Your task to perform on an android device: Open settings on Google Maps Image 0: 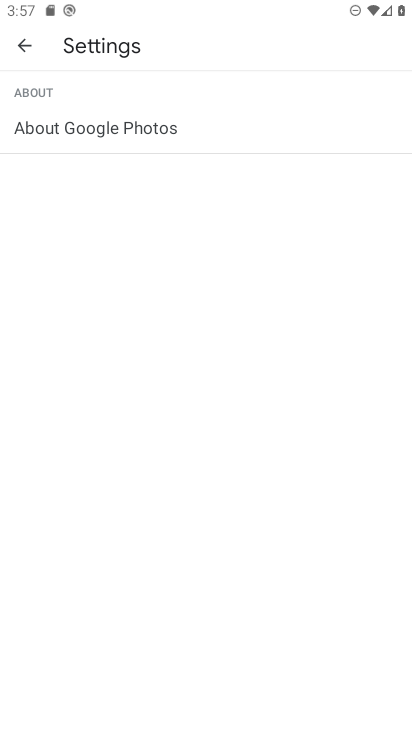
Step 0: click (24, 48)
Your task to perform on an android device: Open settings on Google Maps Image 1: 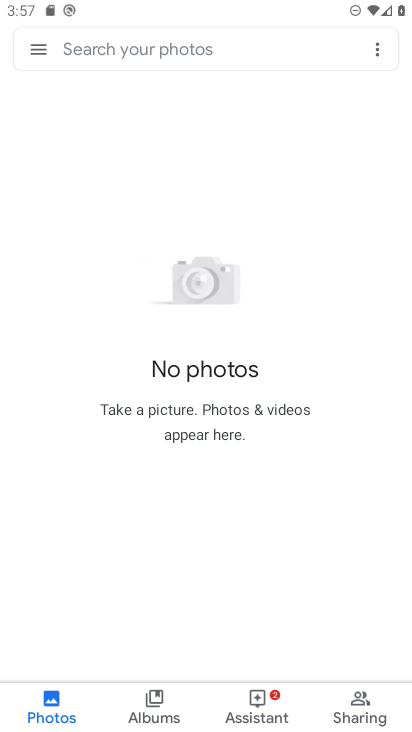
Step 1: press home button
Your task to perform on an android device: Open settings on Google Maps Image 2: 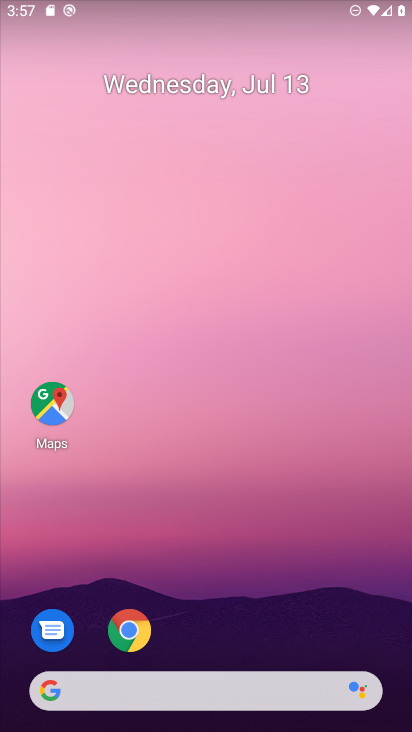
Step 2: click (50, 402)
Your task to perform on an android device: Open settings on Google Maps Image 3: 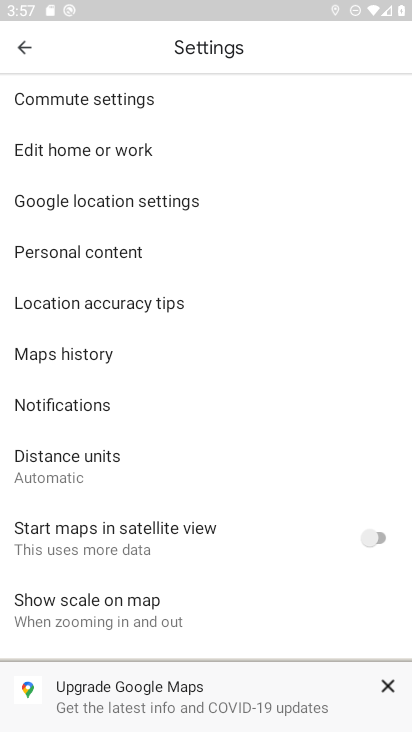
Step 3: drag from (167, 595) to (183, 436)
Your task to perform on an android device: Open settings on Google Maps Image 4: 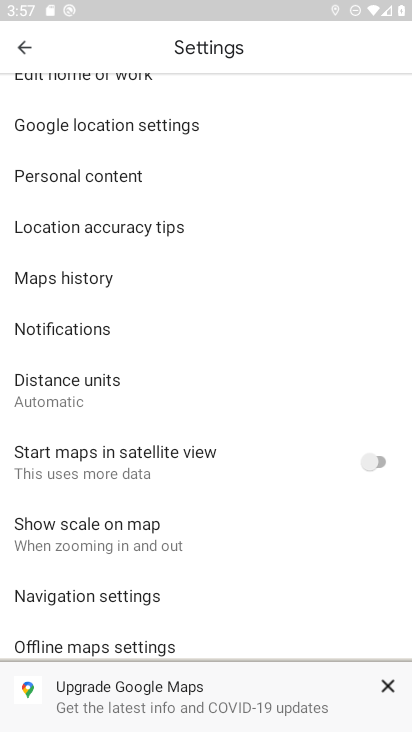
Step 4: click (256, 285)
Your task to perform on an android device: Open settings on Google Maps Image 5: 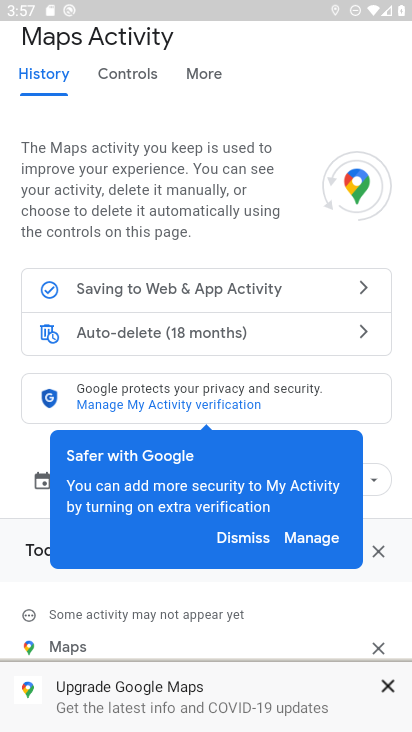
Step 5: press home button
Your task to perform on an android device: Open settings on Google Maps Image 6: 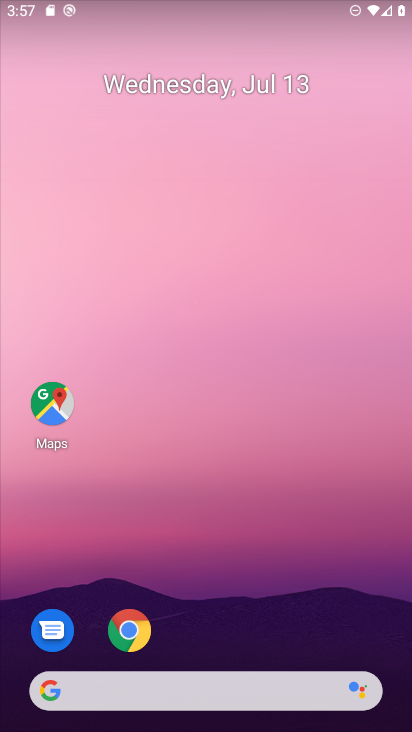
Step 6: click (131, 633)
Your task to perform on an android device: Open settings on Google Maps Image 7: 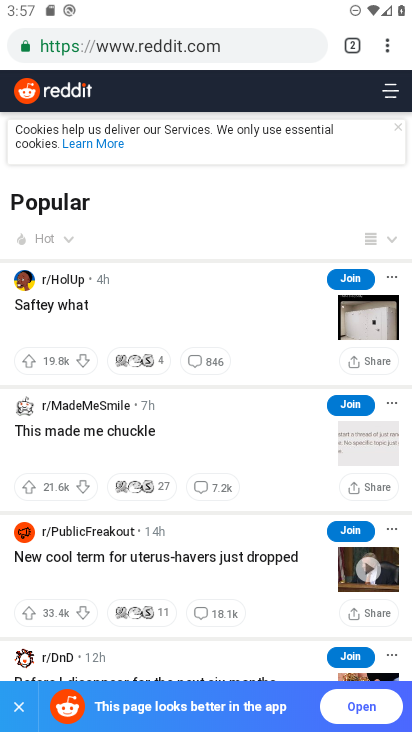
Step 7: press home button
Your task to perform on an android device: Open settings on Google Maps Image 8: 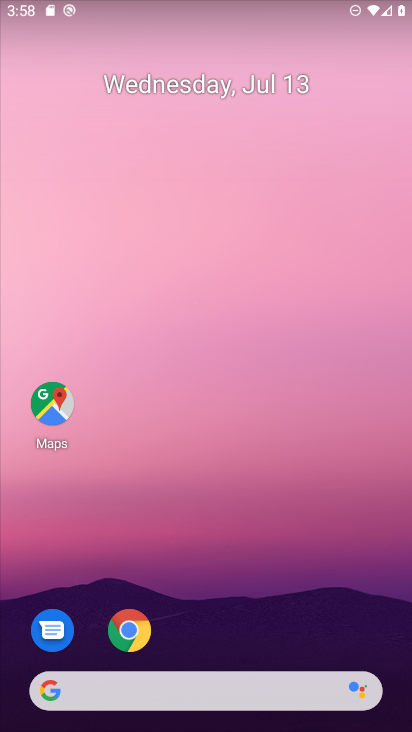
Step 8: click (53, 413)
Your task to perform on an android device: Open settings on Google Maps Image 9: 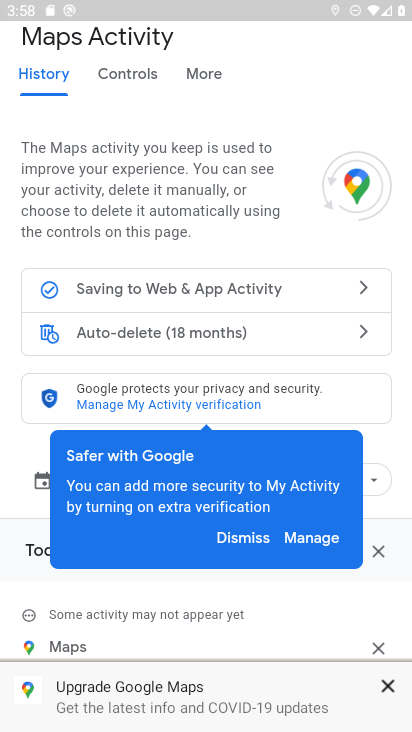
Step 9: task complete